Your task to perform on an android device: What's on my calendar today? Image 0: 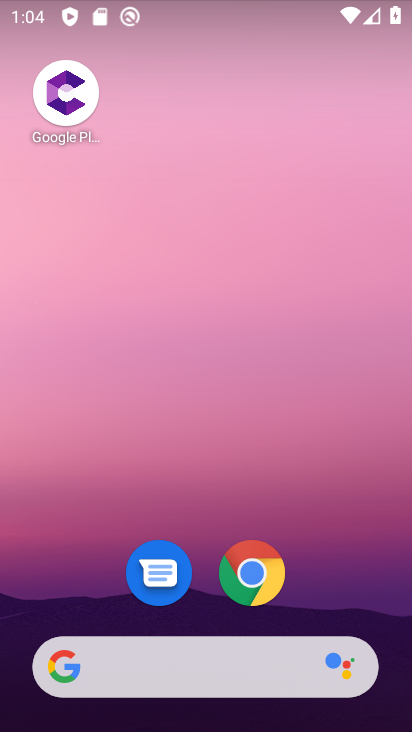
Step 0: drag from (326, 566) to (248, 60)
Your task to perform on an android device: What's on my calendar today? Image 1: 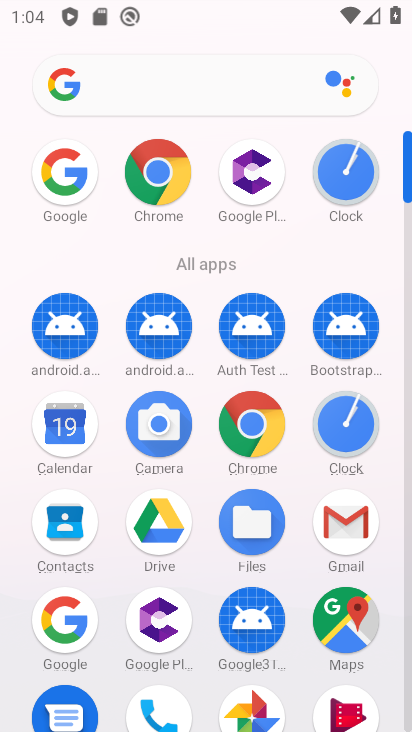
Step 1: click (62, 425)
Your task to perform on an android device: What's on my calendar today? Image 2: 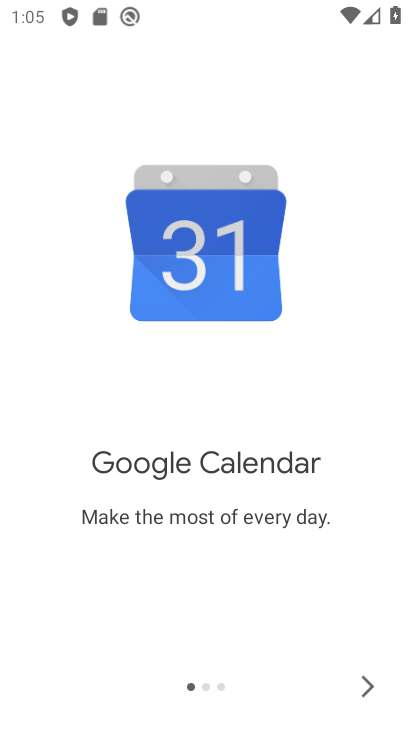
Step 2: click (364, 692)
Your task to perform on an android device: What's on my calendar today? Image 3: 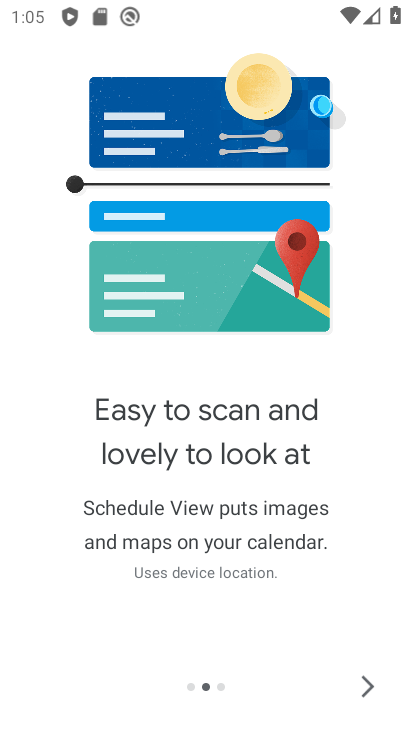
Step 3: click (364, 685)
Your task to perform on an android device: What's on my calendar today? Image 4: 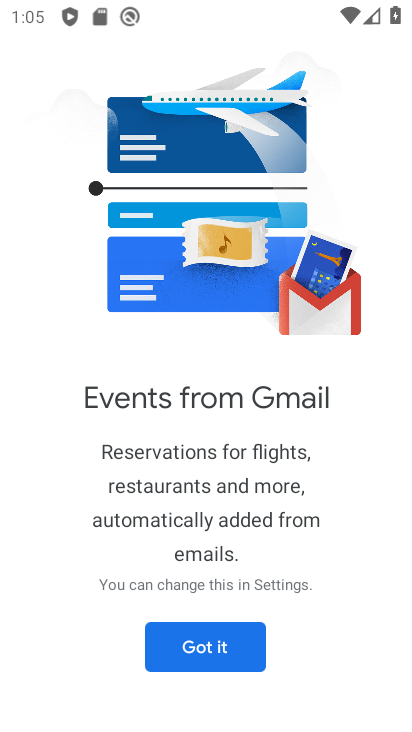
Step 4: click (234, 629)
Your task to perform on an android device: What's on my calendar today? Image 5: 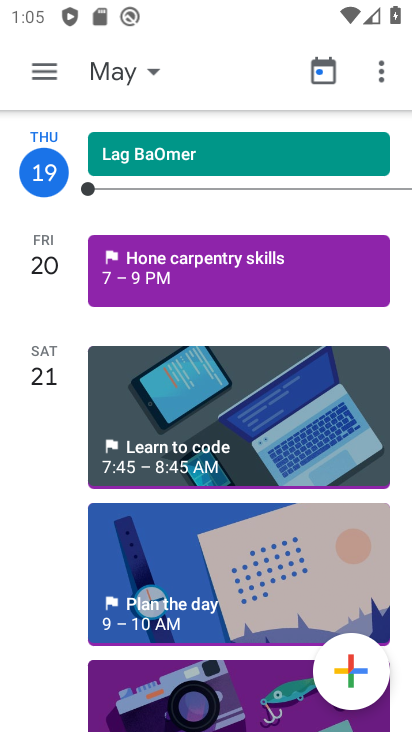
Step 5: click (321, 73)
Your task to perform on an android device: What's on my calendar today? Image 6: 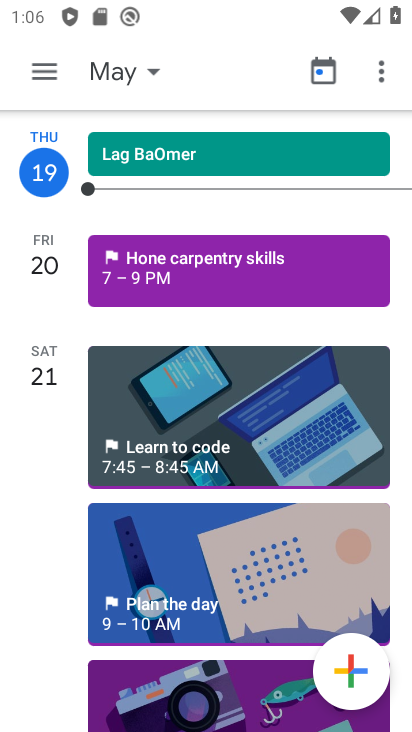
Step 6: task complete